Your task to perform on an android device: Add "corsair k70" to the cart on bestbuy.com Image 0: 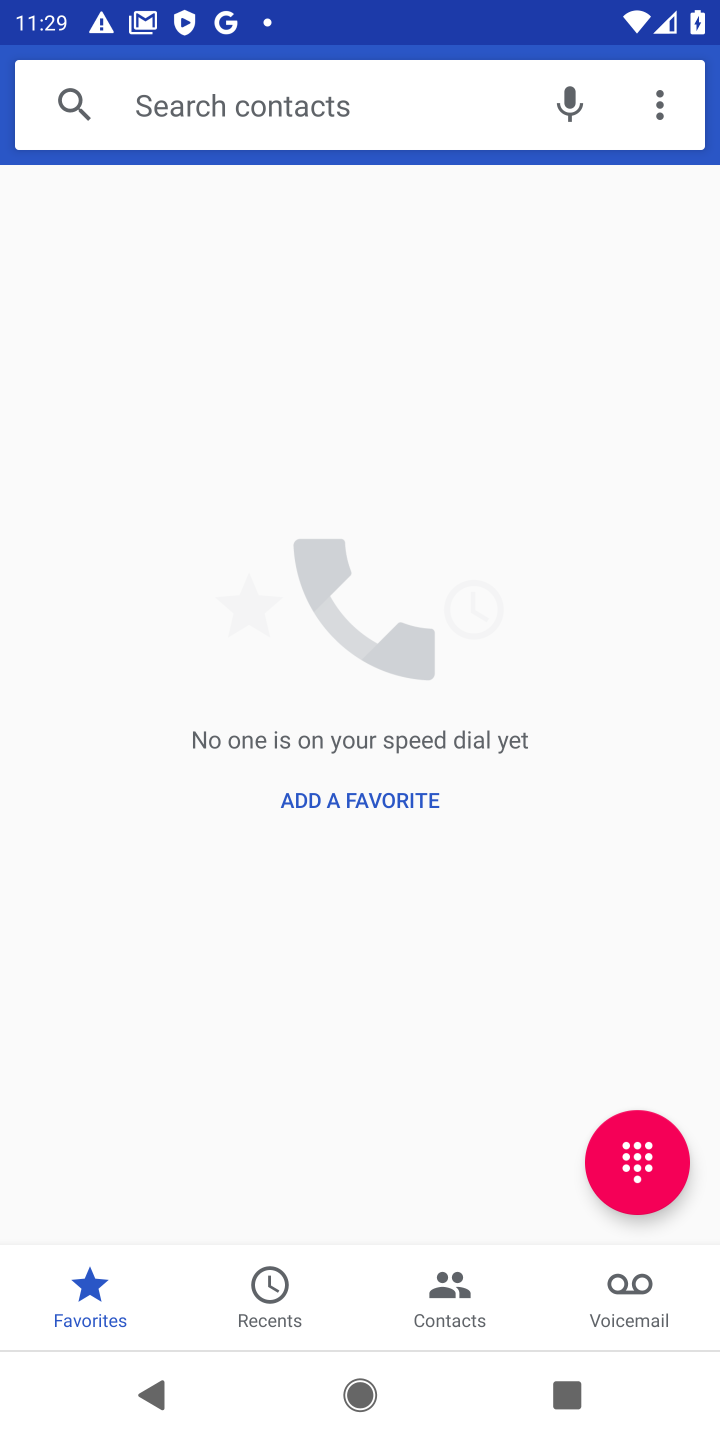
Step 0: press home button
Your task to perform on an android device: Add "corsair k70" to the cart on bestbuy.com Image 1: 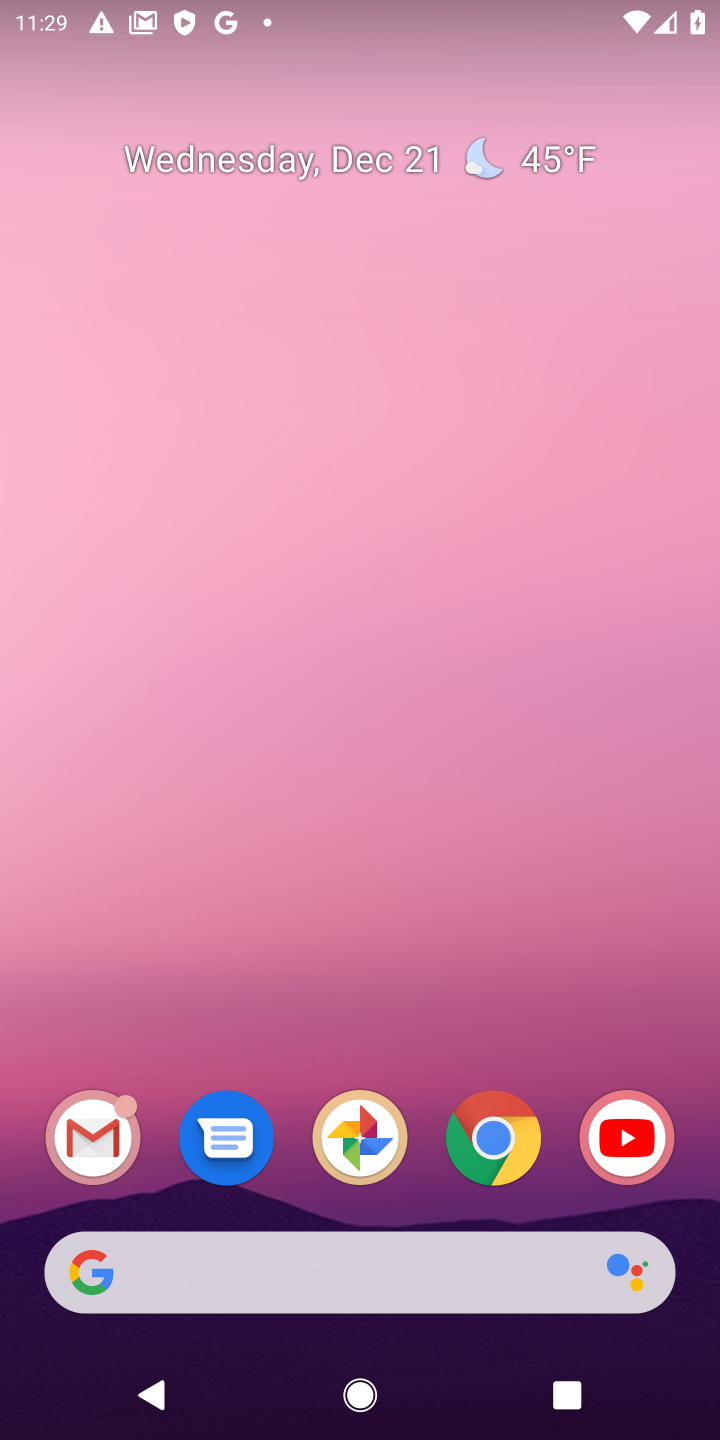
Step 1: click (487, 1150)
Your task to perform on an android device: Add "corsair k70" to the cart on bestbuy.com Image 2: 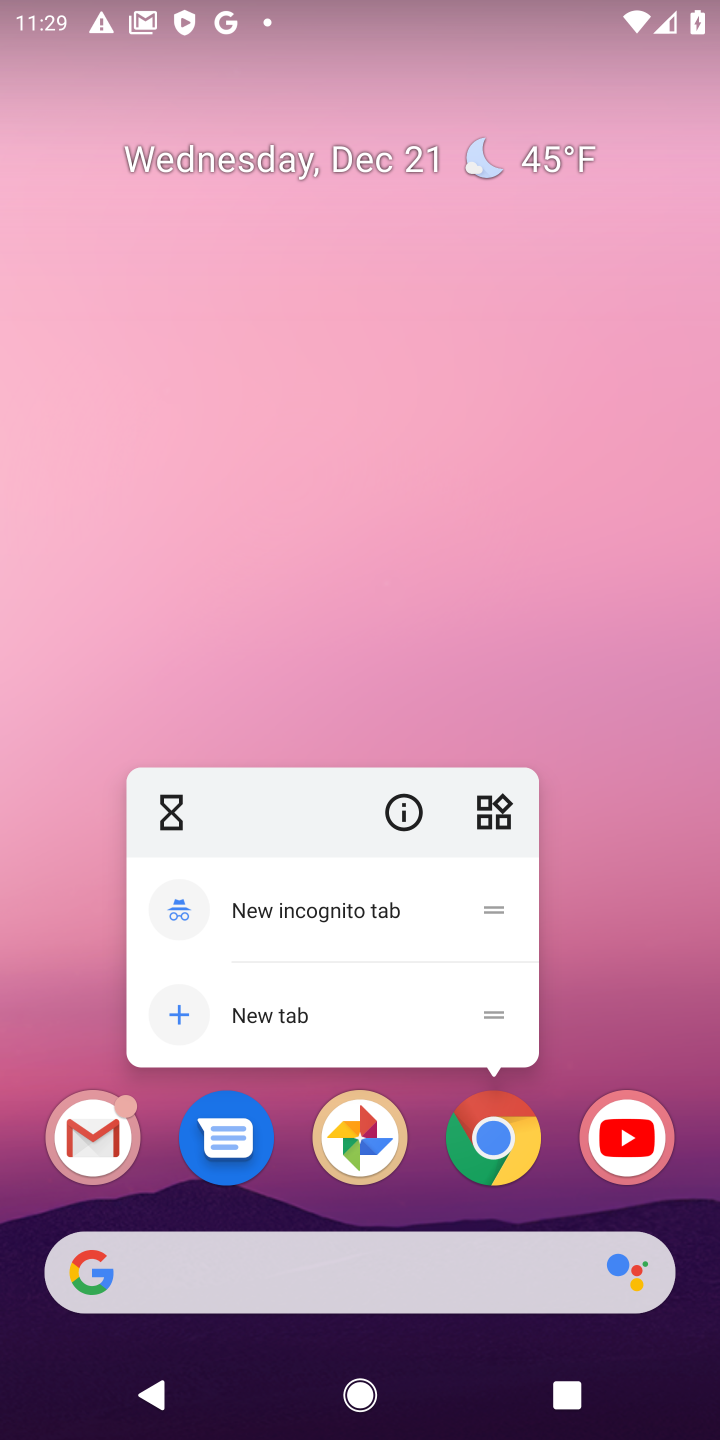
Step 2: click (487, 1150)
Your task to perform on an android device: Add "corsair k70" to the cart on bestbuy.com Image 3: 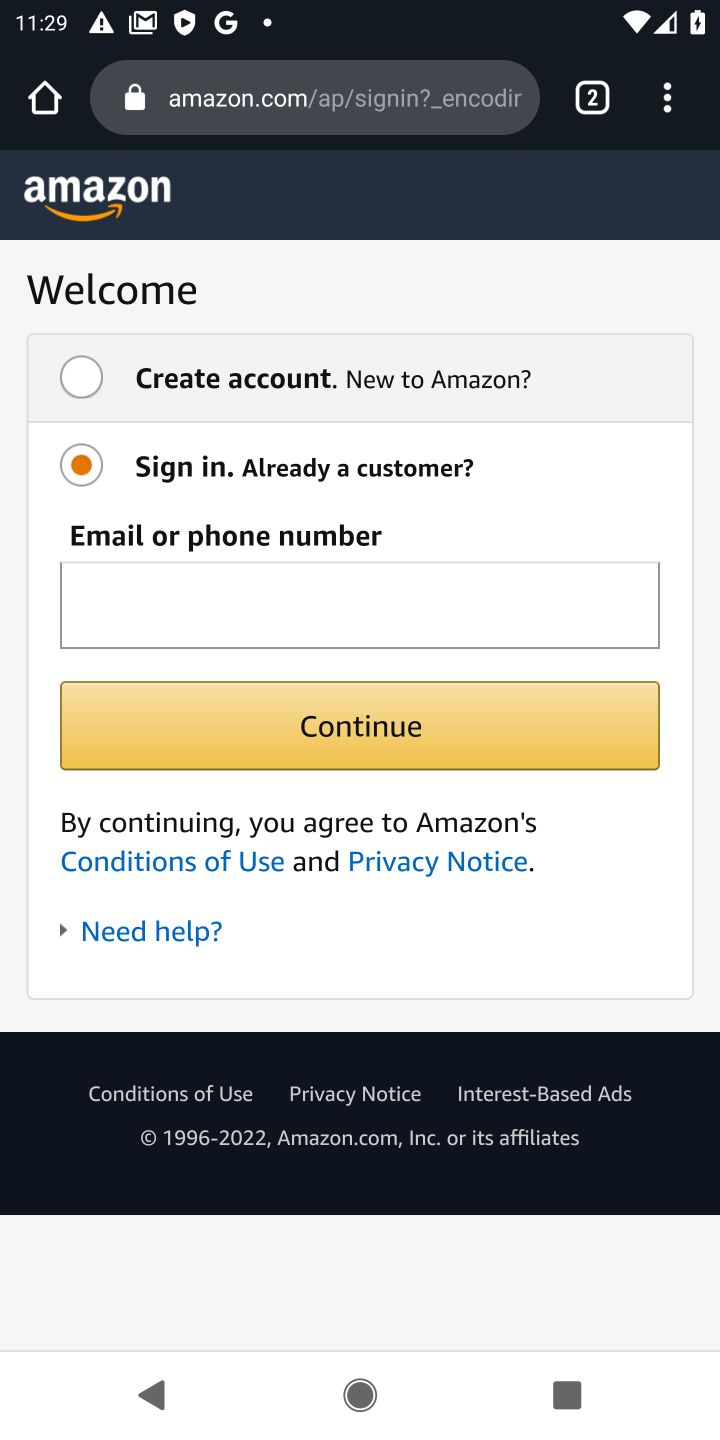
Step 3: click (299, 95)
Your task to perform on an android device: Add "corsair k70" to the cart on bestbuy.com Image 4: 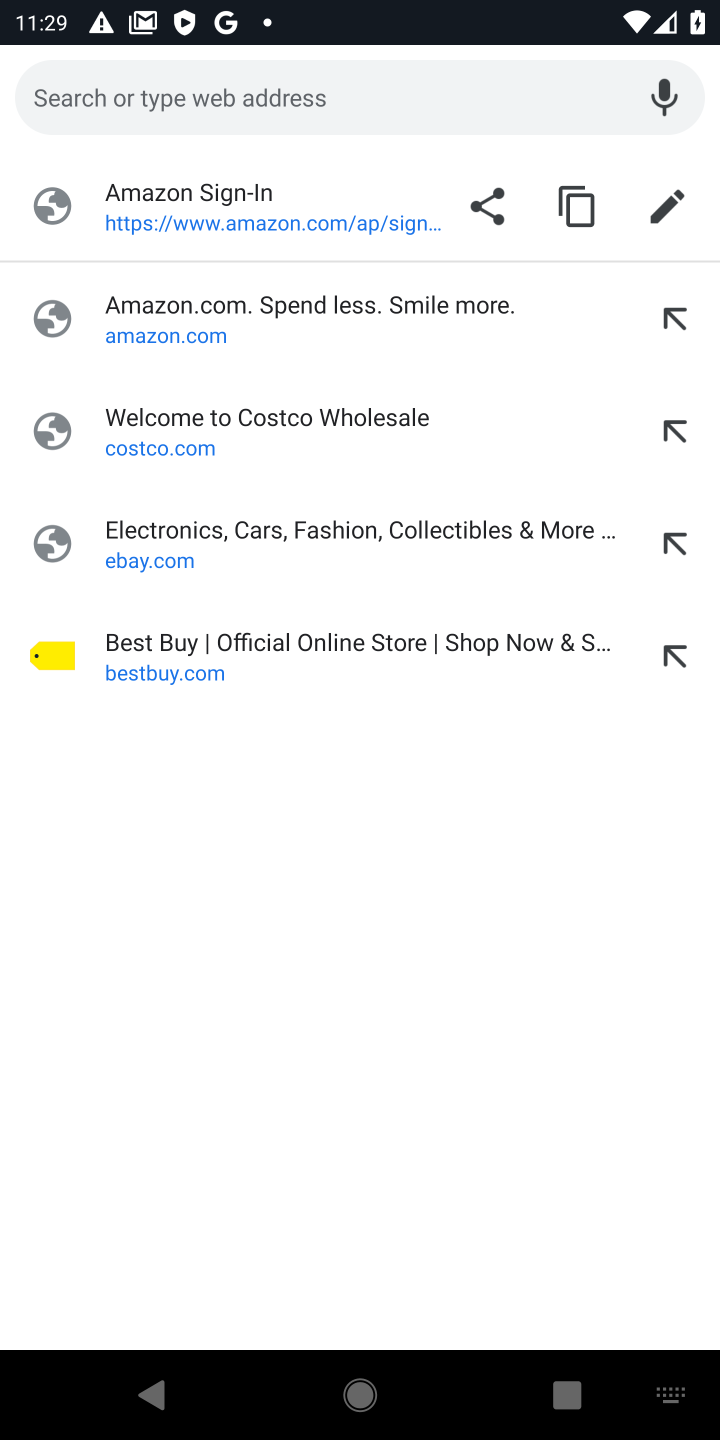
Step 4: click (154, 659)
Your task to perform on an android device: Add "corsair k70" to the cart on bestbuy.com Image 5: 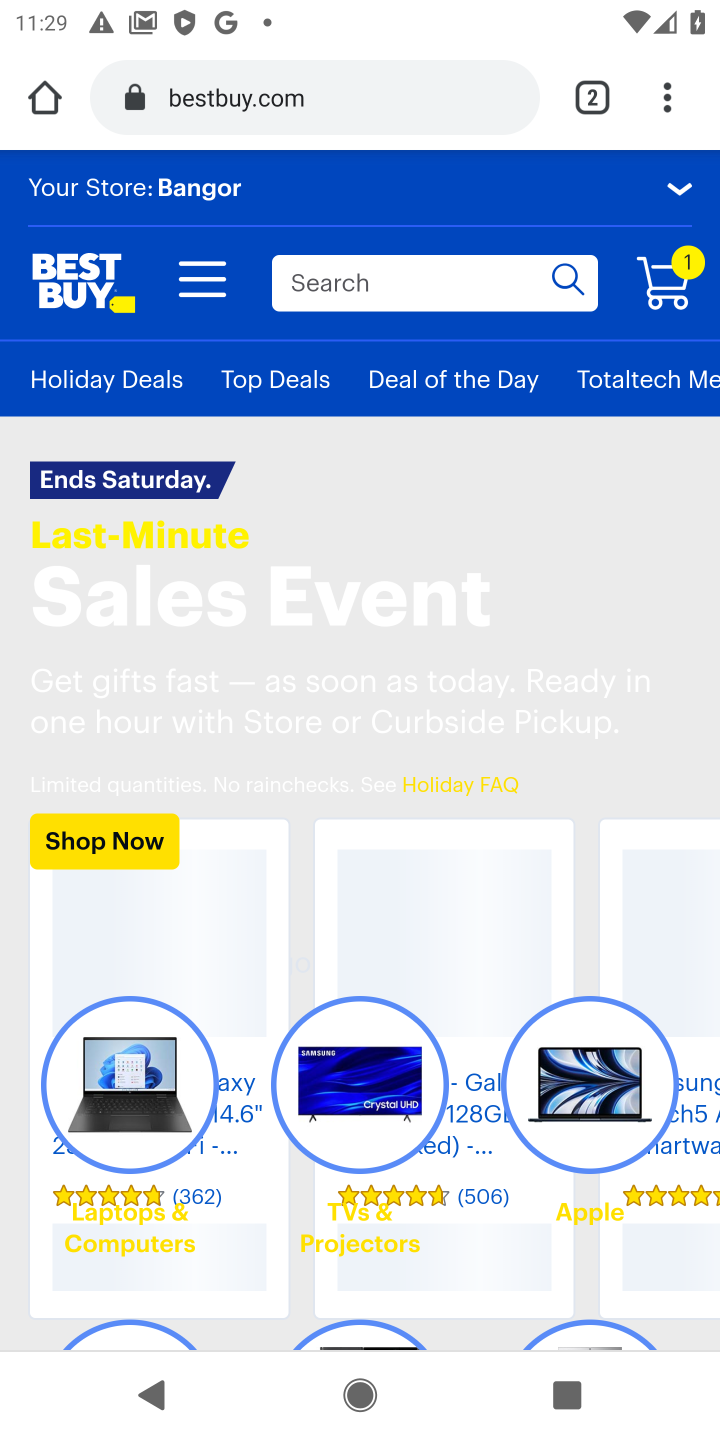
Step 5: click (327, 283)
Your task to perform on an android device: Add "corsair k70" to the cart on bestbuy.com Image 6: 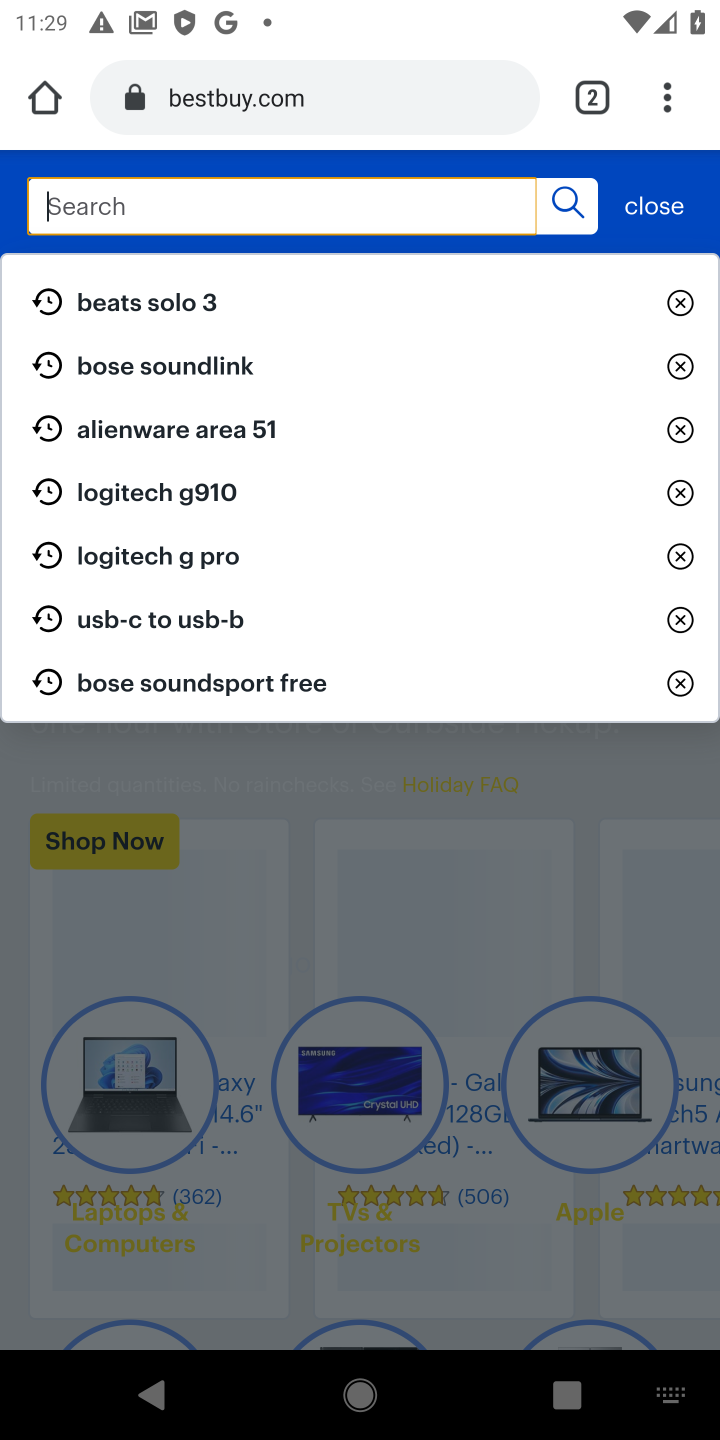
Step 6: type "corsair k70"
Your task to perform on an android device: Add "corsair k70" to the cart on bestbuy.com Image 7: 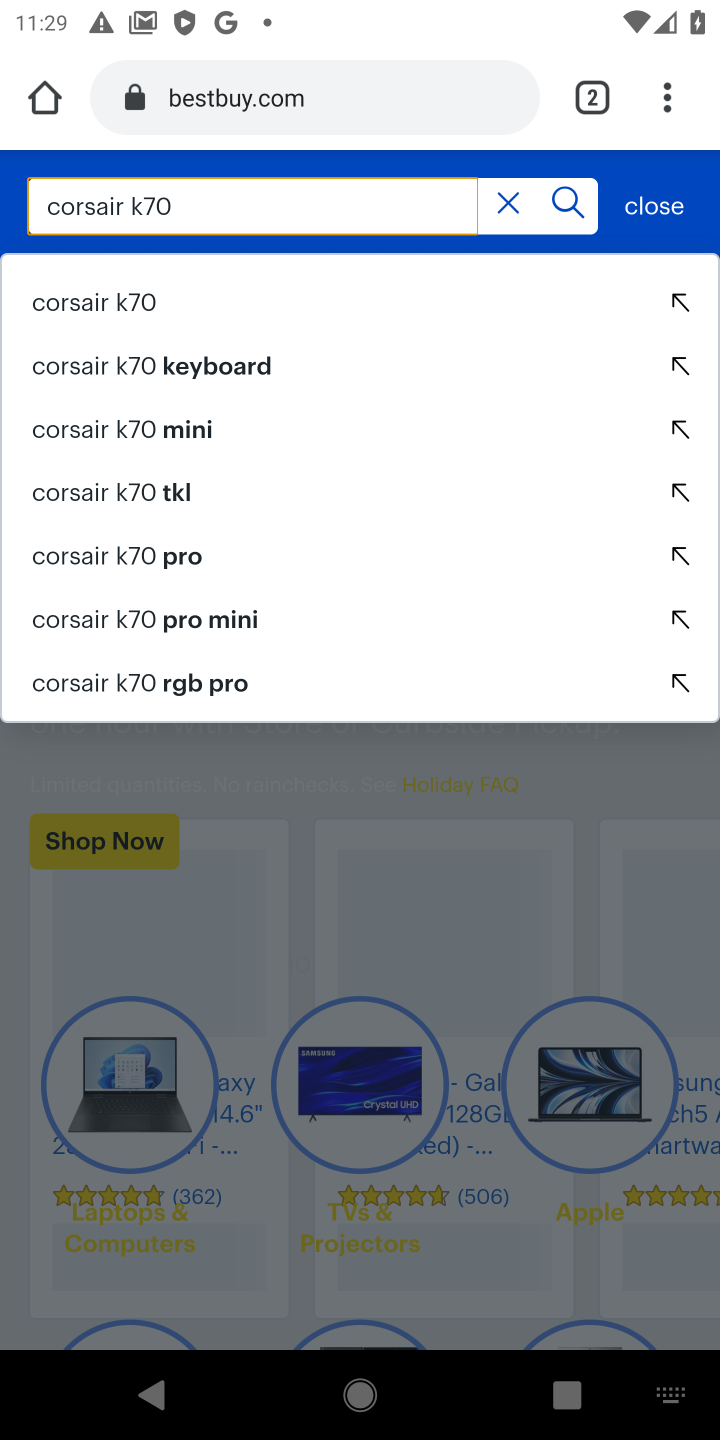
Step 7: click (107, 310)
Your task to perform on an android device: Add "corsair k70" to the cart on bestbuy.com Image 8: 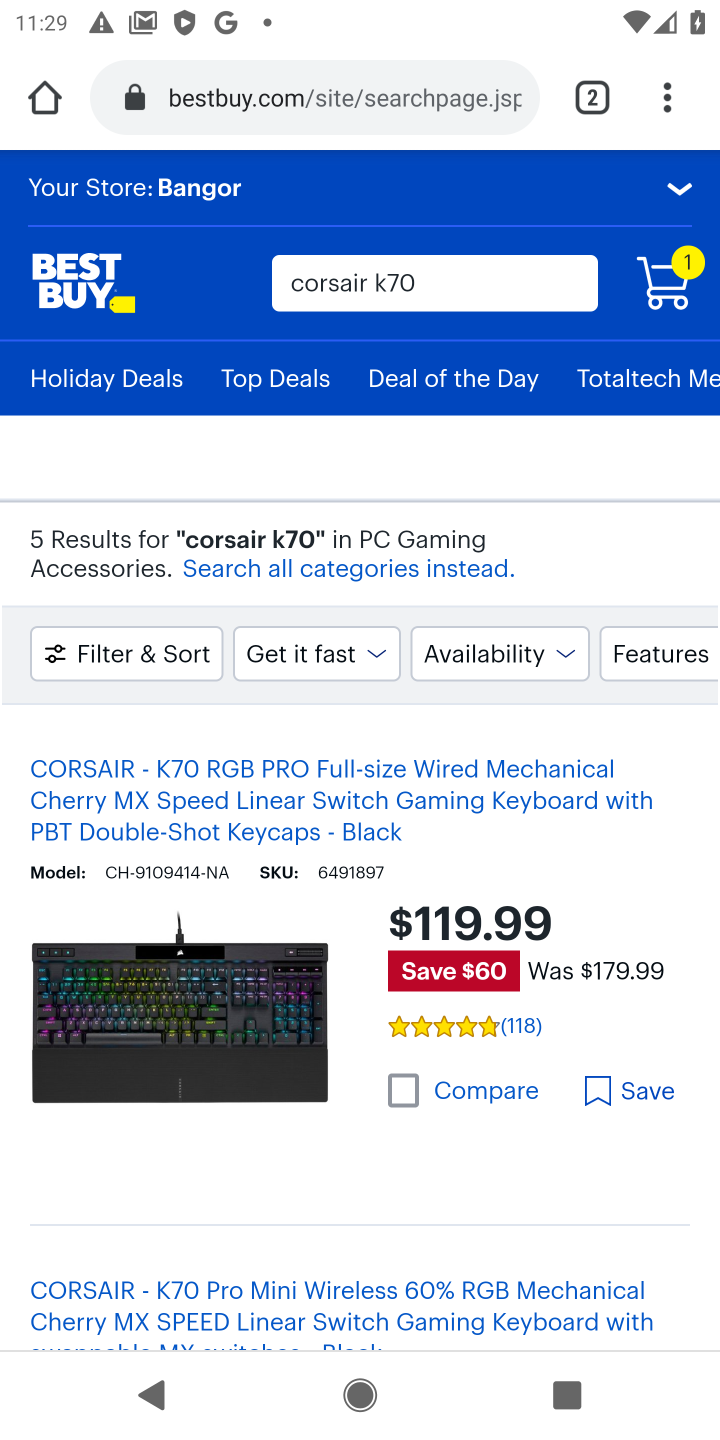
Step 8: drag from (306, 957) to (305, 454)
Your task to perform on an android device: Add "corsair k70" to the cart on bestbuy.com Image 9: 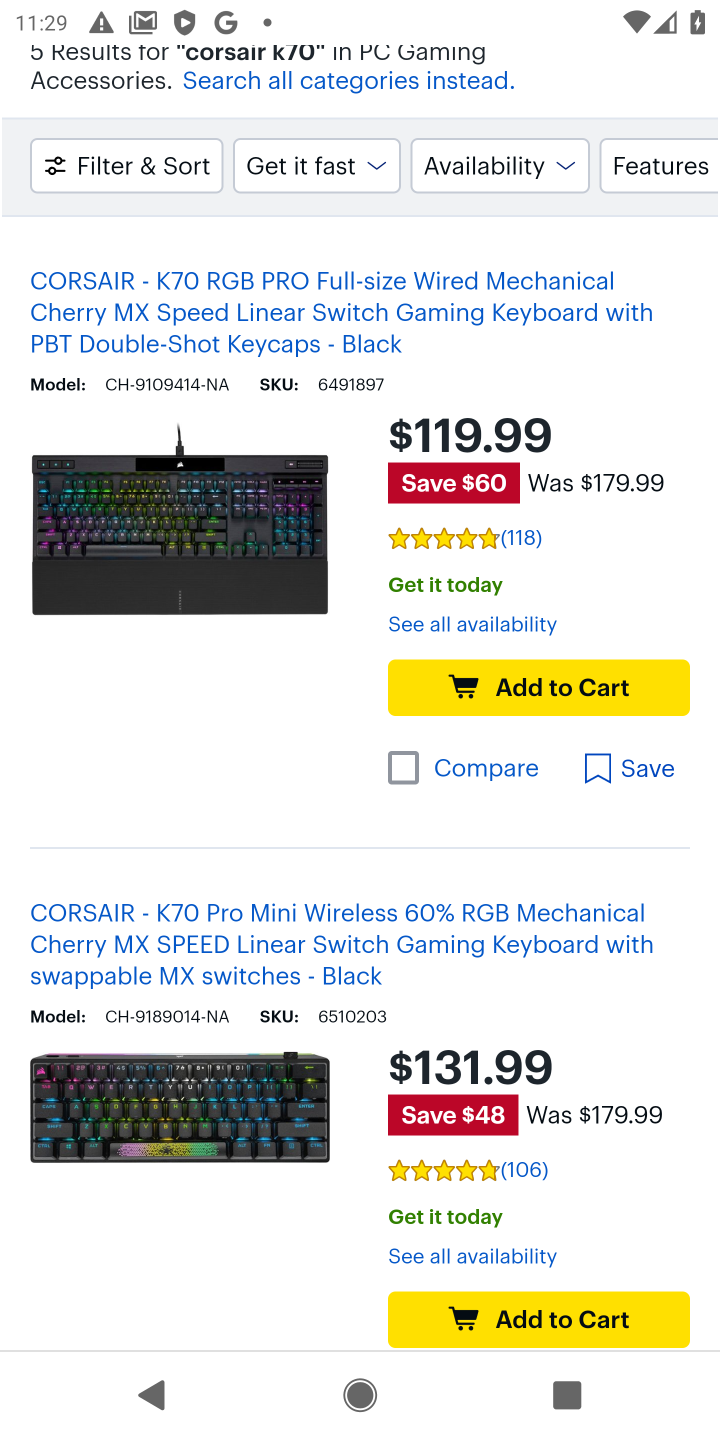
Step 9: click (518, 689)
Your task to perform on an android device: Add "corsair k70" to the cart on bestbuy.com Image 10: 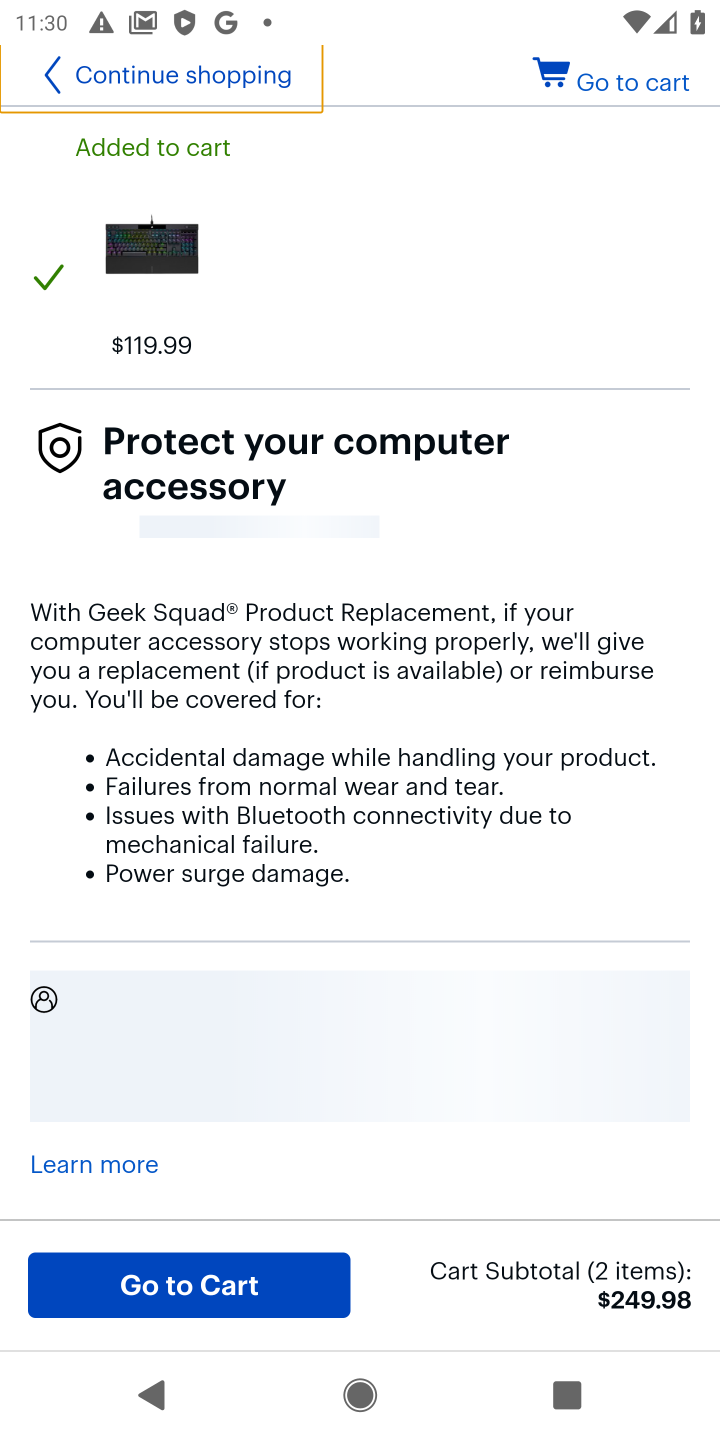
Step 10: task complete